Your task to perform on an android device: turn off notifications in google photos Image 0: 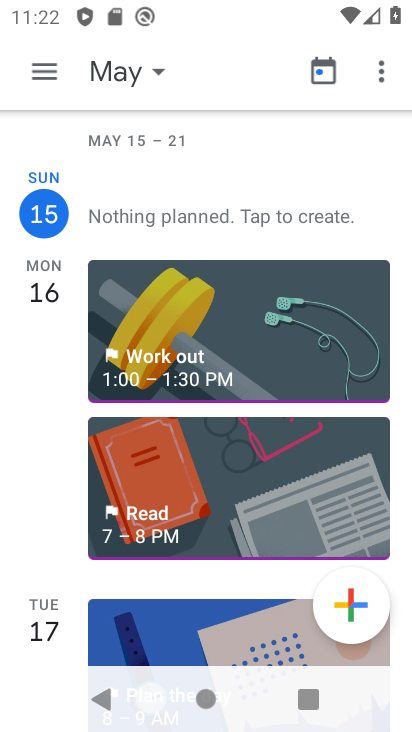
Step 0: press home button
Your task to perform on an android device: turn off notifications in google photos Image 1: 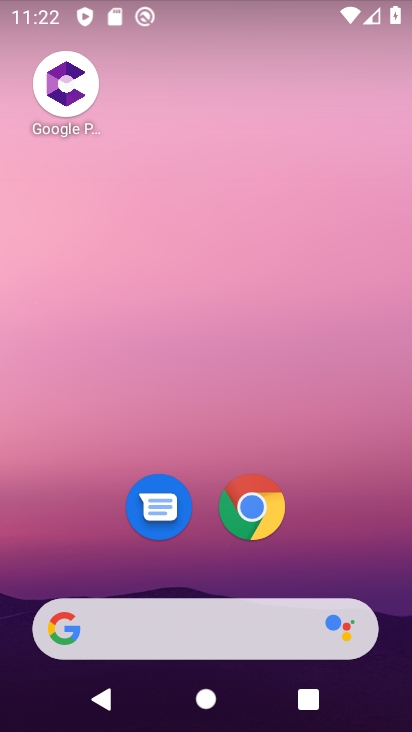
Step 1: drag from (168, 608) to (183, 63)
Your task to perform on an android device: turn off notifications in google photos Image 2: 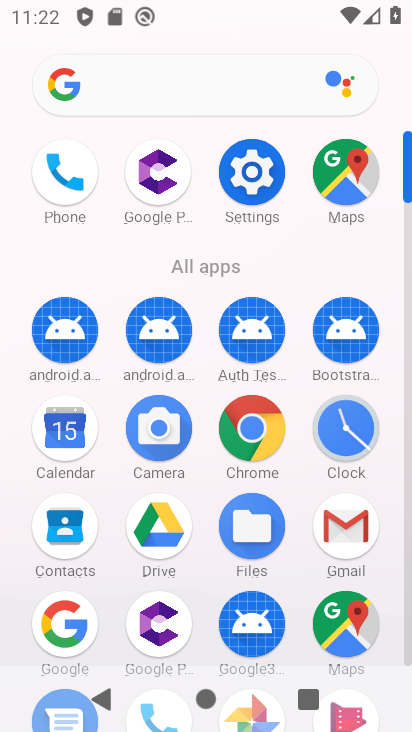
Step 2: drag from (162, 615) to (207, 363)
Your task to perform on an android device: turn off notifications in google photos Image 3: 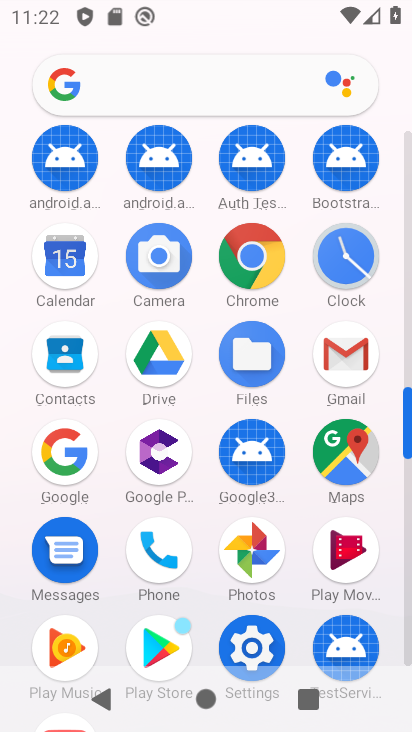
Step 3: click (269, 558)
Your task to perform on an android device: turn off notifications in google photos Image 4: 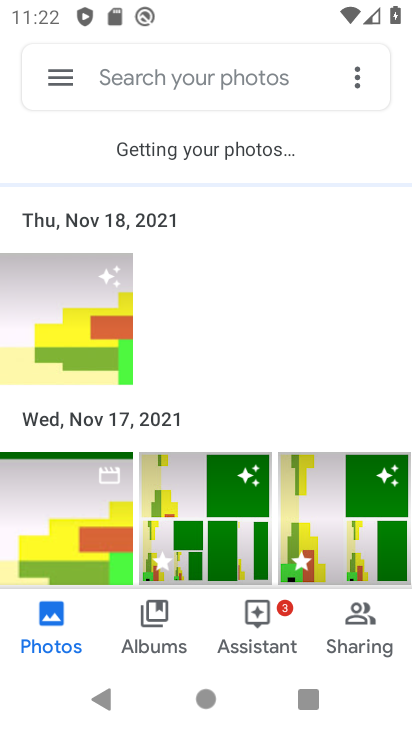
Step 4: click (48, 81)
Your task to perform on an android device: turn off notifications in google photos Image 5: 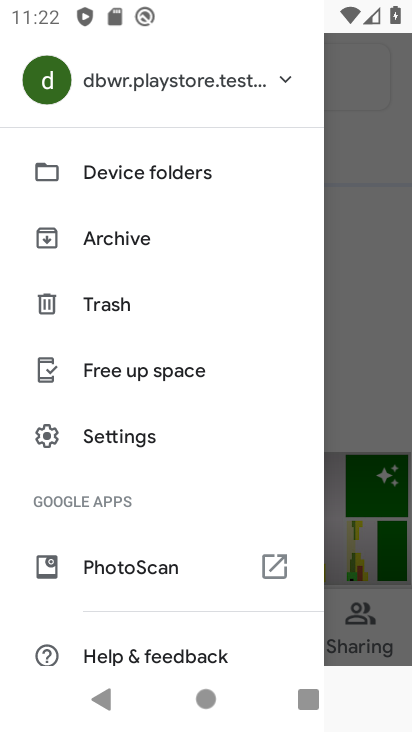
Step 5: drag from (127, 560) to (227, 168)
Your task to perform on an android device: turn off notifications in google photos Image 6: 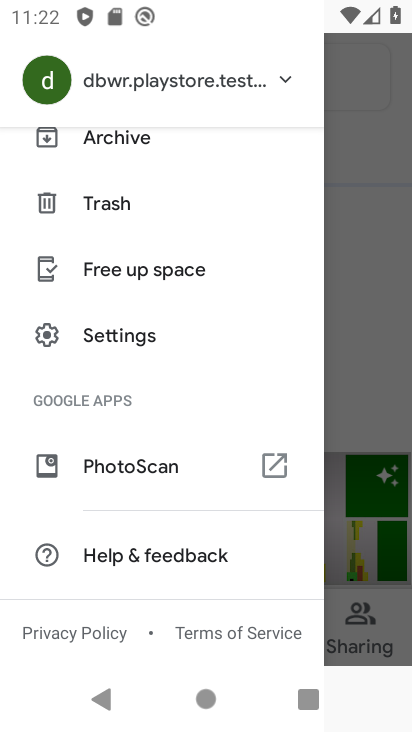
Step 6: click (128, 334)
Your task to perform on an android device: turn off notifications in google photos Image 7: 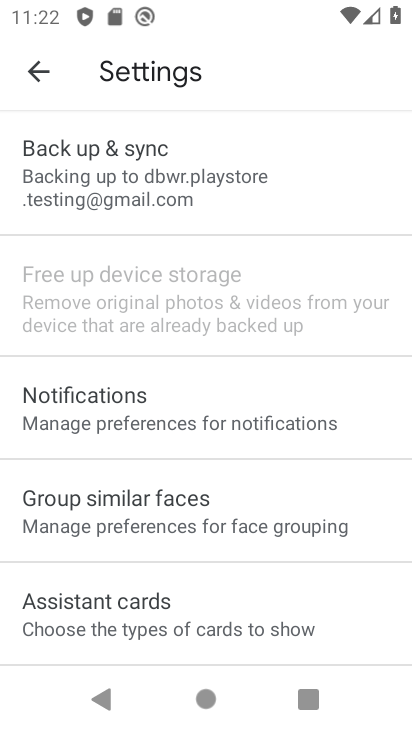
Step 7: drag from (216, 595) to (294, 148)
Your task to perform on an android device: turn off notifications in google photos Image 8: 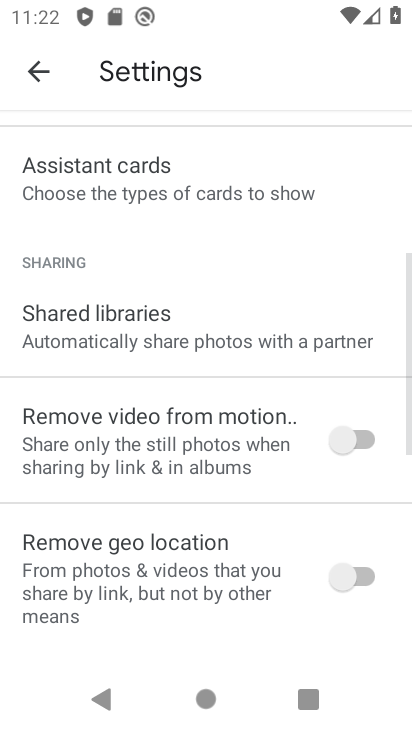
Step 8: drag from (211, 268) to (185, 595)
Your task to perform on an android device: turn off notifications in google photos Image 9: 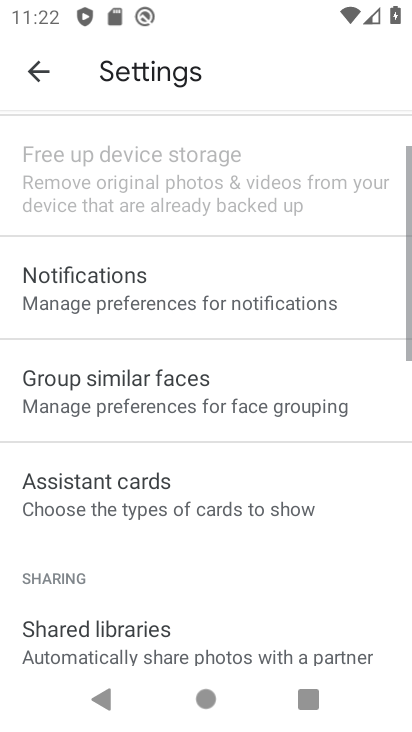
Step 9: drag from (206, 234) to (198, 326)
Your task to perform on an android device: turn off notifications in google photos Image 10: 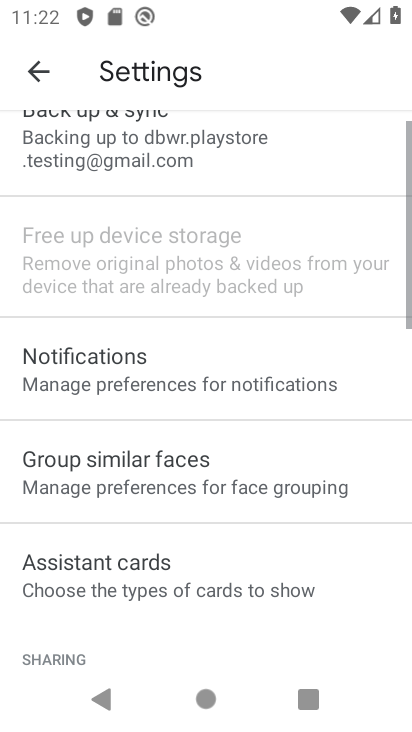
Step 10: click (193, 317)
Your task to perform on an android device: turn off notifications in google photos Image 11: 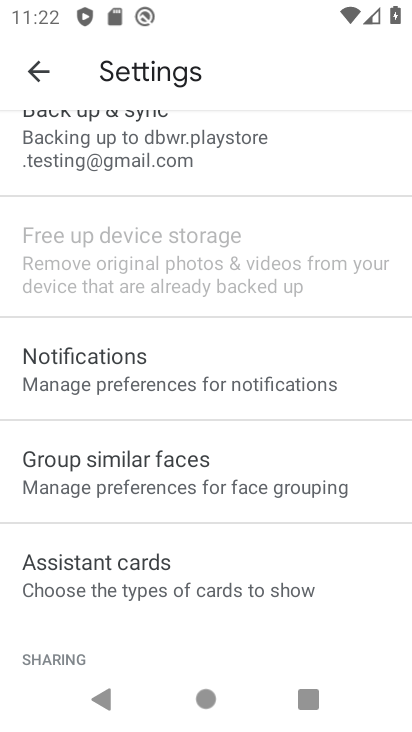
Step 11: click (191, 399)
Your task to perform on an android device: turn off notifications in google photos Image 12: 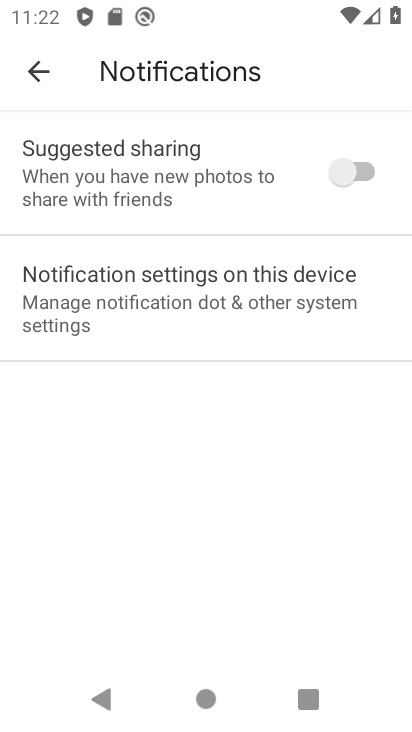
Step 12: click (292, 307)
Your task to perform on an android device: turn off notifications in google photos Image 13: 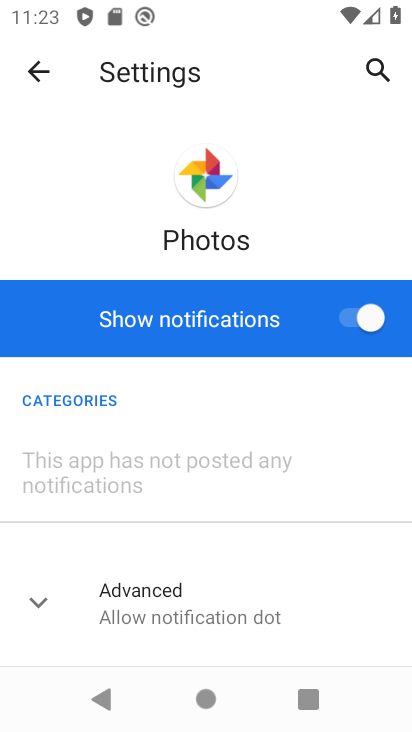
Step 13: click (361, 312)
Your task to perform on an android device: turn off notifications in google photos Image 14: 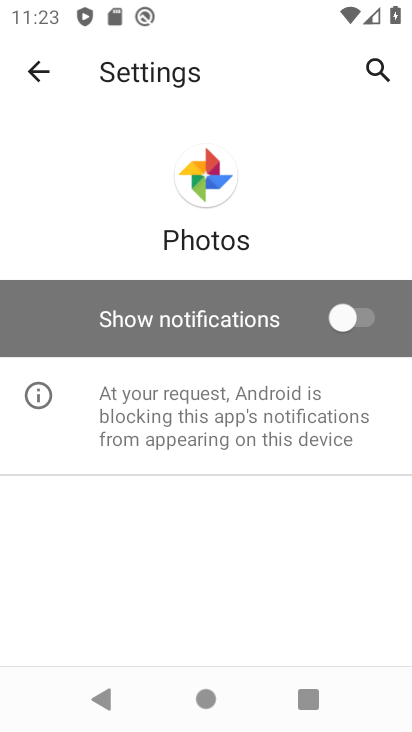
Step 14: task complete